Your task to perform on an android device: Search for the most popular coffee table on Crate & Barrel Image 0: 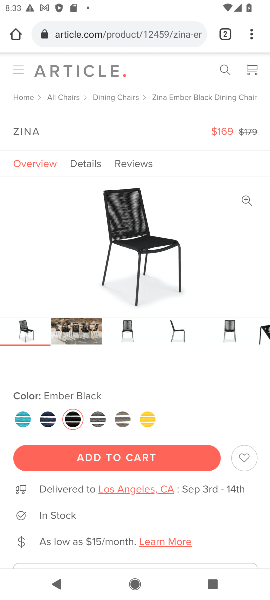
Step 0: press home button
Your task to perform on an android device: Search for the most popular coffee table on Crate & Barrel Image 1: 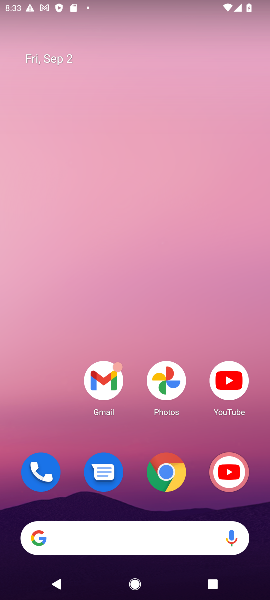
Step 1: drag from (129, 526) to (143, 120)
Your task to perform on an android device: Search for the most popular coffee table on Crate & Barrel Image 2: 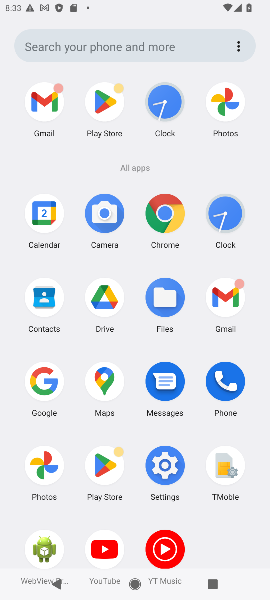
Step 2: click (41, 380)
Your task to perform on an android device: Search for the most popular coffee table on Crate & Barrel Image 3: 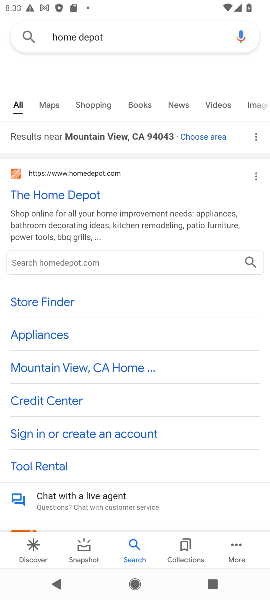
Step 3: click (120, 36)
Your task to perform on an android device: Search for the most popular coffee table on Crate & Barrel Image 4: 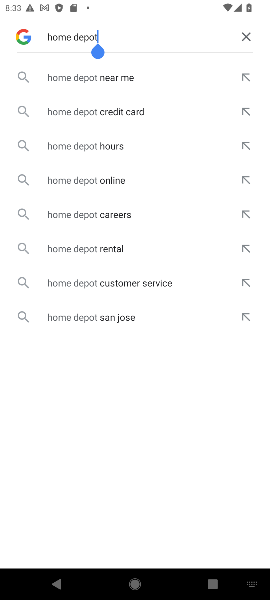
Step 4: click (241, 36)
Your task to perform on an android device: Search for the most popular coffee table on Crate & Barrel Image 5: 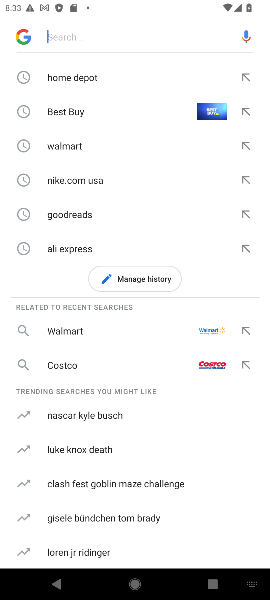
Step 5: type "Crate & Barrel"
Your task to perform on an android device: Search for the most popular coffee table on Crate & Barrel Image 6: 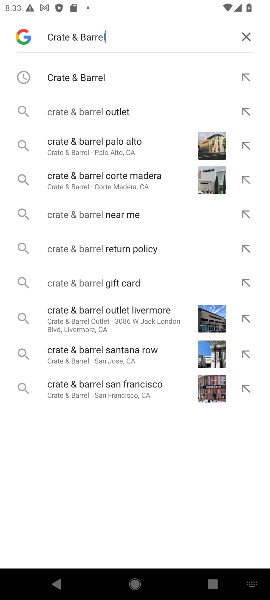
Step 6: click (57, 76)
Your task to perform on an android device: Search for the most popular coffee table on Crate & Barrel Image 7: 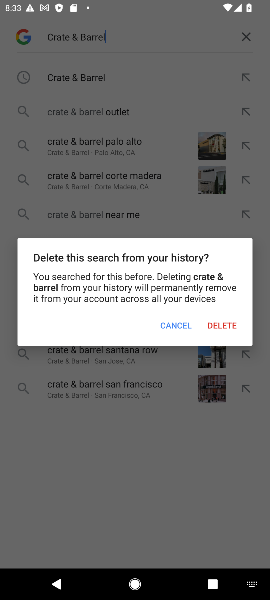
Step 7: click (176, 327)
Your task to perform on an android device: Search for the most popular coffee table on Crate & Barrel Image 8: 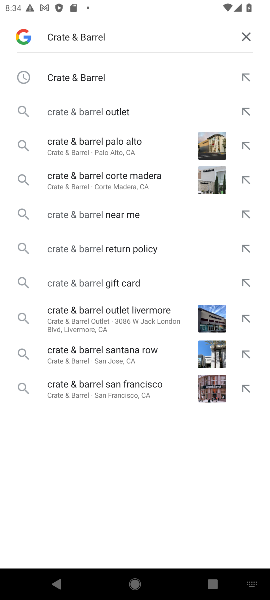
Step 8: click (57, 79)
Your task to perform on an android device: Search for the most popular coffee table on Crate & Barrel Image 9: 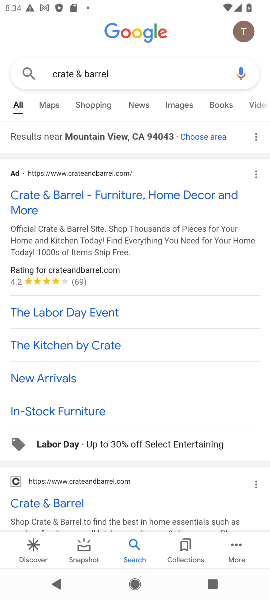
Step 9: click (81, 194)
Your task to perform on an android device: Search for the most popular coffee table on Crate & Barrel Image 10: 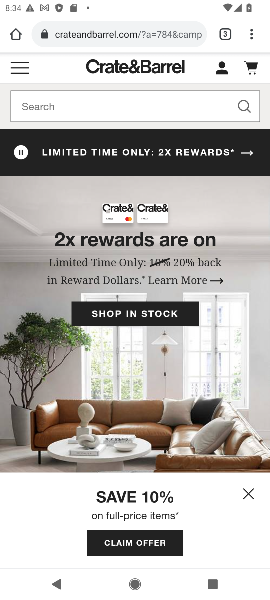
Step 10: click (32, 108)
Your task to perform on an android device: Search for the most popular coffee table on Crate & Barrel Image 11: 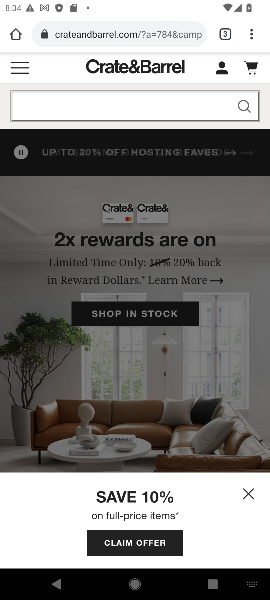
Step 11: type "coffee table"
Your task to perform on an android device: Search for the most popular coffee table on Crate & Barrel Image 12: 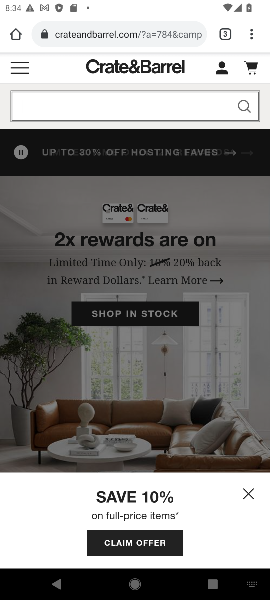
Step 12: click (43, 106)
Your task to perform on an android device: Search for the most popular coffee table on Crate & Barrel Image 13: 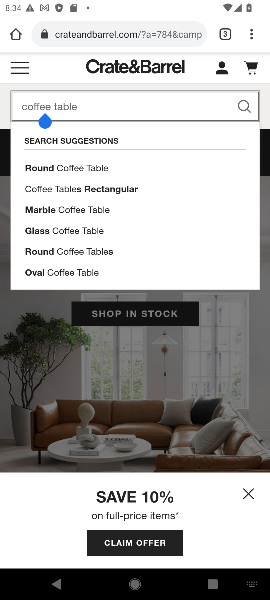
Step 13: click (243, 103)
Your task to perform on an android device: Search for the most popular coffee table on Crate & Barrel Image 14: 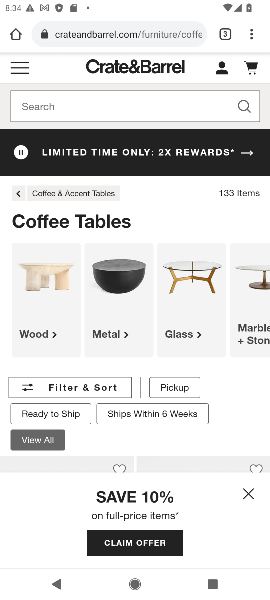
Step 14: task complete